Your task to perform on an android device: Turn on the flashlight Image 0: 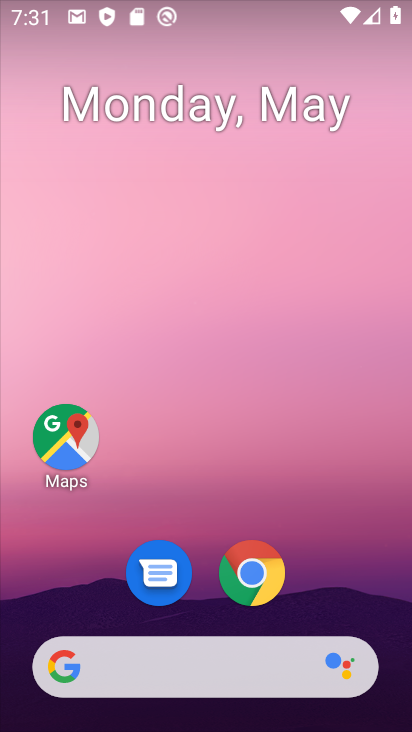
Step 0: drag from (204, 595) to (187, 193)
Your task to perform on an android device: Turn on the flashlight Image 1: 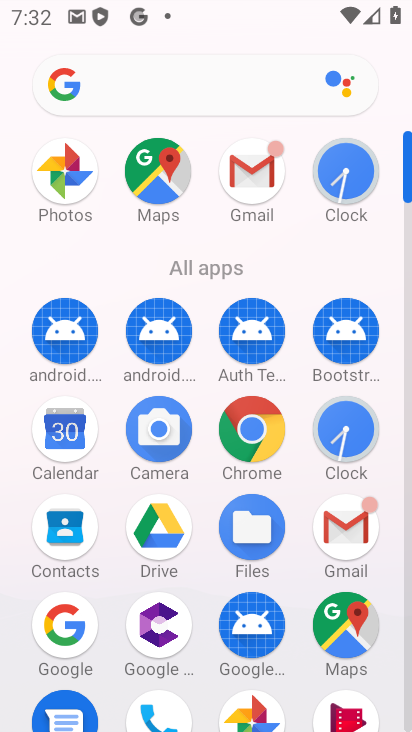
Step 1: task complete